Your task to perform on an android device: What's on my calendar tomorrow? Image 0: 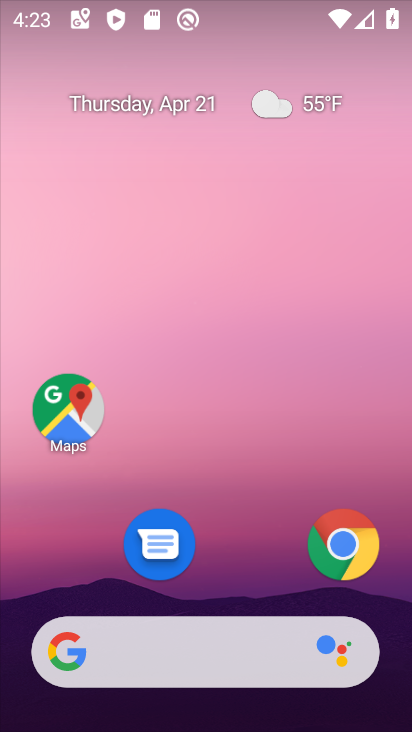
Step 0: drag from (261, 406) to (293, 118)
Your task to perform on an android device: What's on my calendar tomorrow? Image 1: 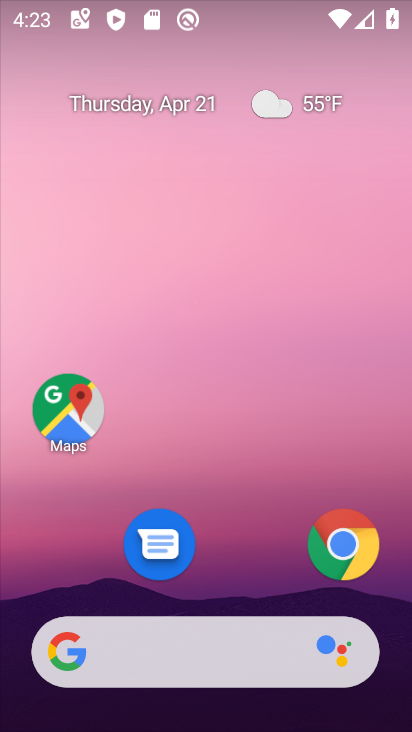
Step 1: drag from (240, 661) to (342, 99)
Your task to perform on an android device: What's on my calendar tomorrow? Image 2: 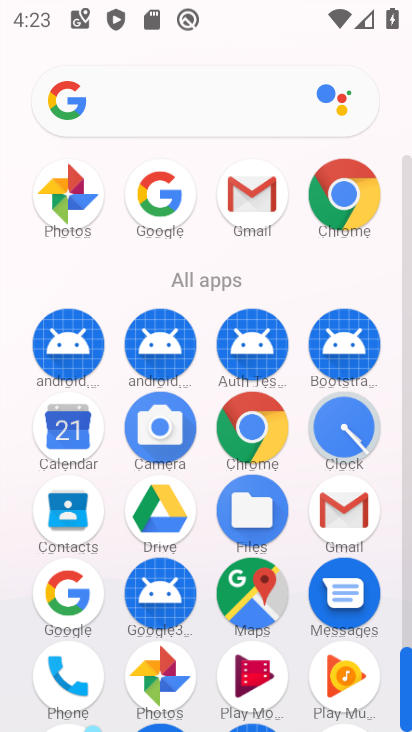
Step 2: drag from (113, 587) to (219, 245)
Your task to perform on an android device: What's on my calendar tomorrow? Image 3: 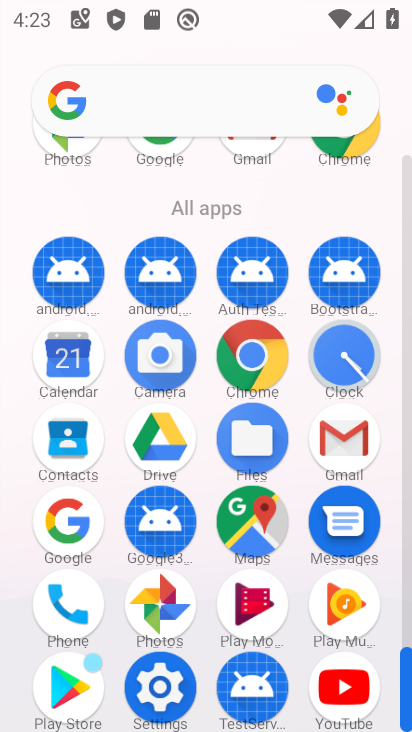
Step 3: drag from (198, 595) to (337, 250)
Your task to perform on an android device: What's on my calendar tomorrow? Image 4: 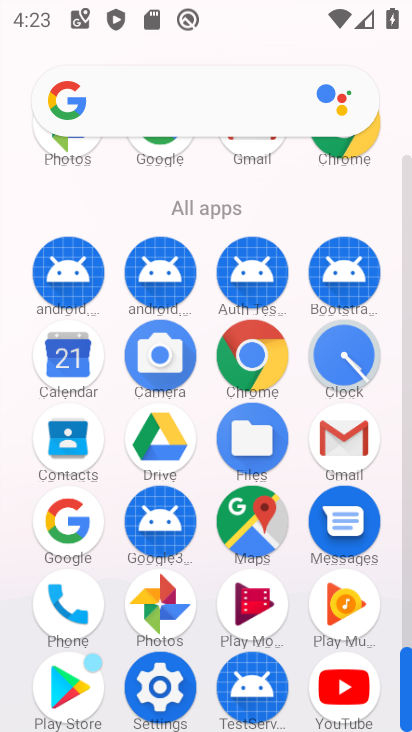
Step 4: drag from (296, 492) to (297, 162)
Your task to perform on an android device: What's on my calendar tomorrow? Image 5: 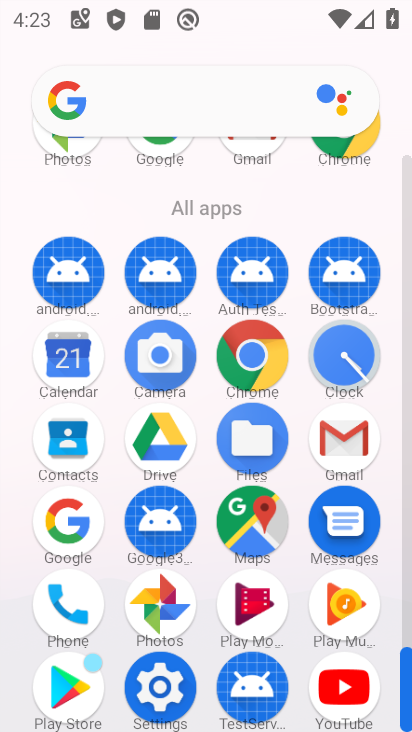
Step 5: click (64, 366)
Your task to perform on an android device: What's on my calendar tomorrow? Image 6: 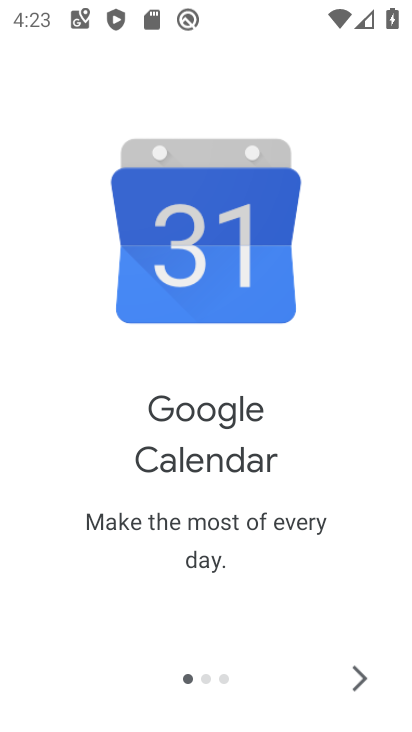
Step 6: click (358, 673)
Your task to perform on an android device: What's on my calendar tomorrow? Image 7: 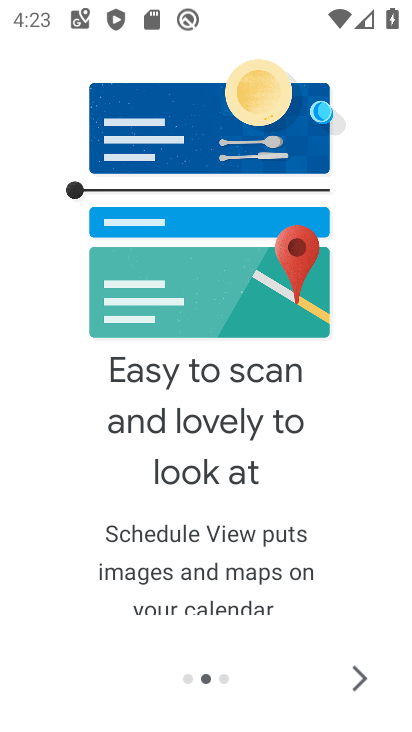
Step 7: click (365, 674)
Your task to perform on an android device: What's on my calendar tomorrow? Image 8: 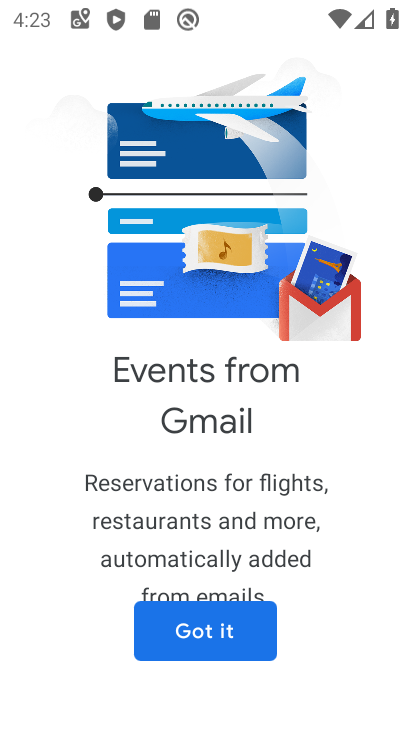
Step 8: click (240, 636)
Your task to perform on an android device: What's on my calendar tomorrow? Image 9: 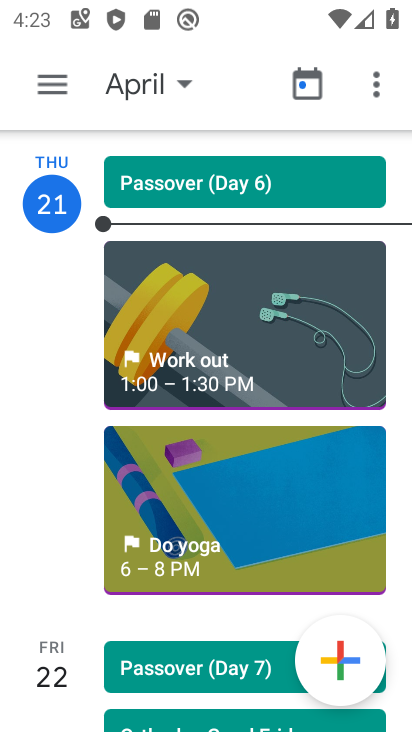
Step 9: task complete